Your task to perform on an android device: Open calendar and show me the second week of next month Image 0: 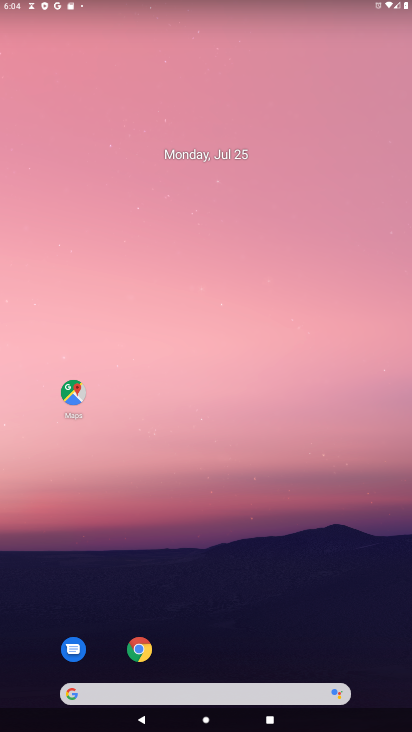
Step 0: drag from (197, 698) to (306, 0)
Your task to perform on an android device: Open calendar and show me the second week of next month Image 1: 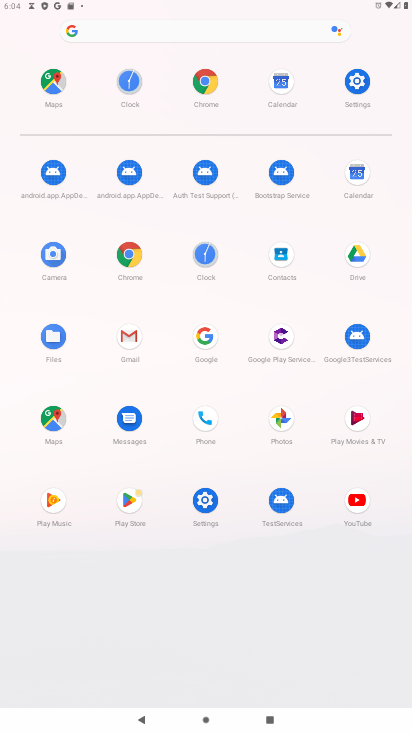
Step 1: click (359, 173)
Your task to perform on an android device: Open calendar and show me the second week of next month Image 2: 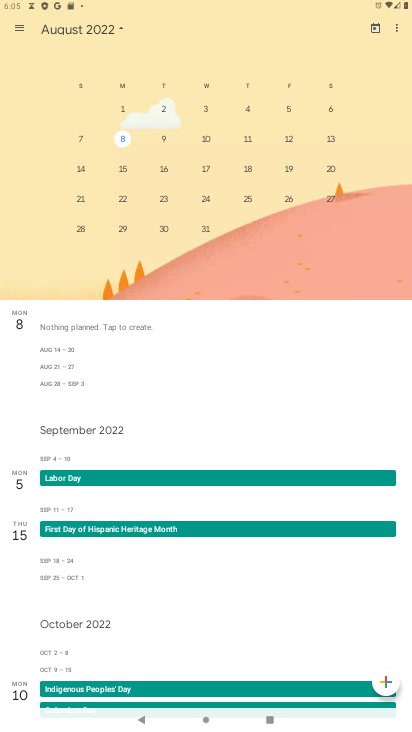
Step 2: click (115, 26)
Your task to perform on an android device: Open calendar and show me the second week of next month Image 3: 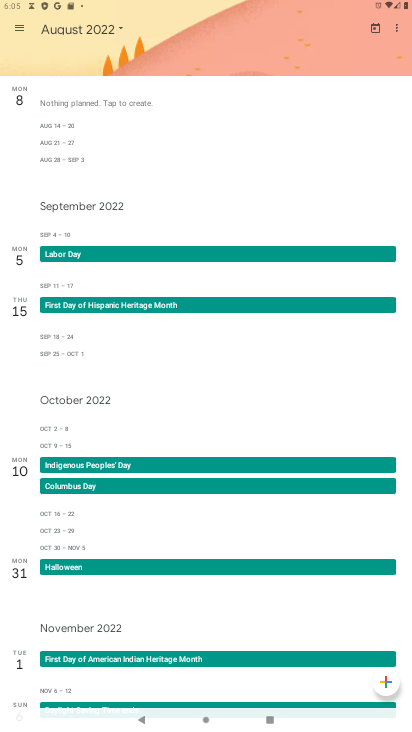
Step 3: click (112, 23)
Your task to perform on an android device: Open calendar and show me the second week of next month Image 4: 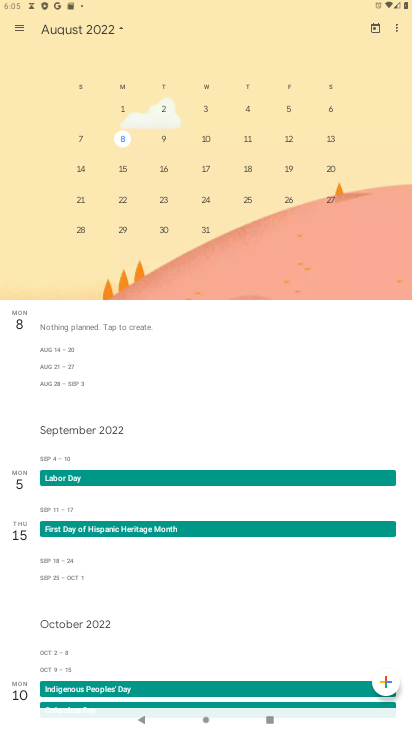
Step 4: click (208, 136)
Your task to perform on an android device: Open calendar and show me the second week of next month Image 5: 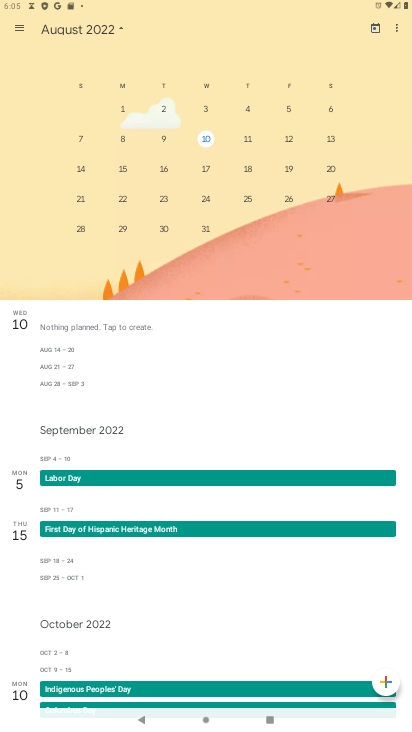
Step 5: click (18, 30)
Your task to perform on an android device: Open calendar and show me the second week of next month Image 6: 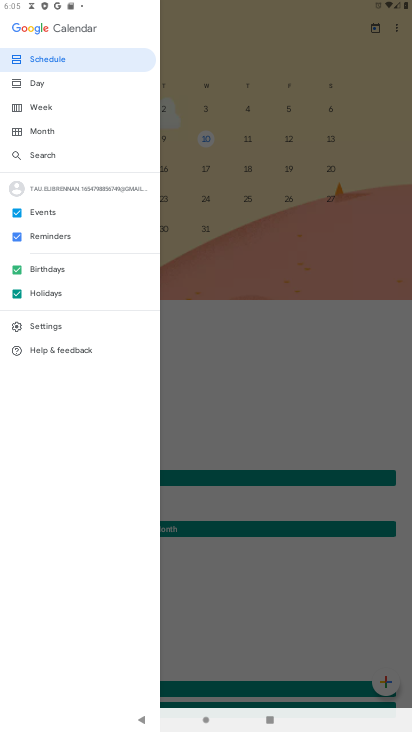
Step 6: click (46, 103)
Your task to perform on an android device: Open calendar and show me the second week of next month Image 7: 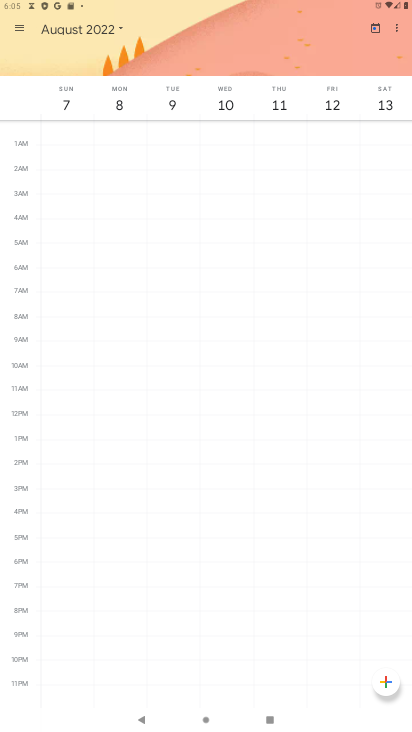
Step 7: task complete